Your task to perform on an android device: turn on notifications settings in the gmail app Image 0: 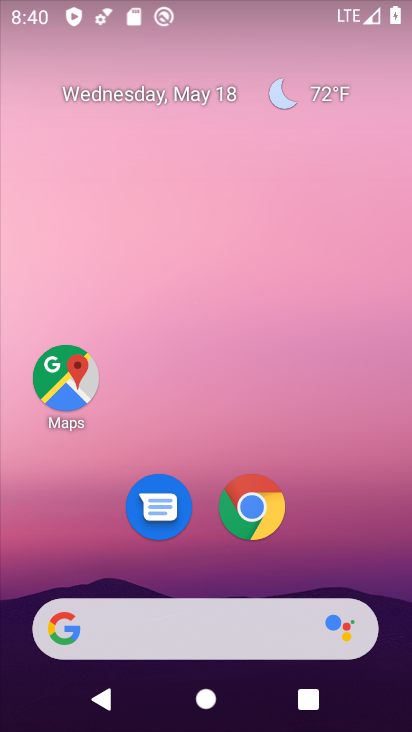
Step 0: drag from (262, 556) to (202, 30)
Your task to perform on an android device: turn on notifications settings in the gmail app Image 1: 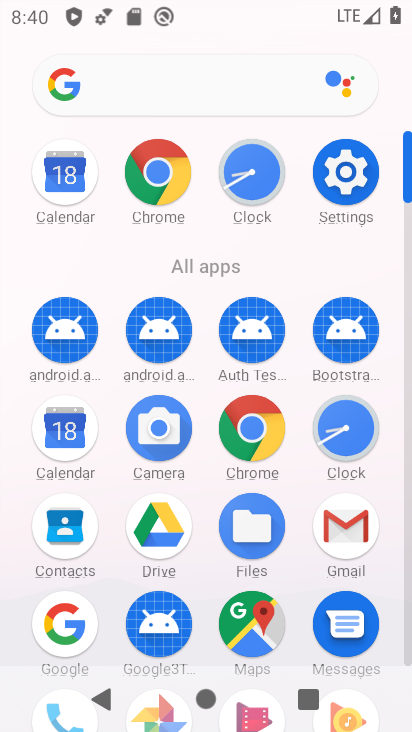
Step 1: click (408, 603)
Your task to perform on an android device: turn on notifications settings in the gmail app Image 2: 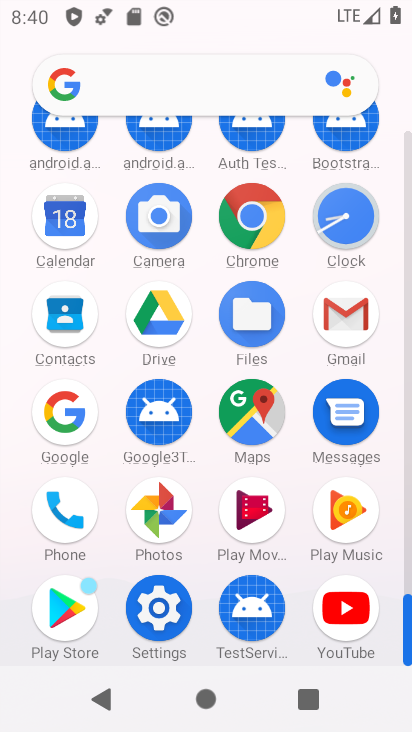
Step 2: click (359, 312)
Your task to perform on an android device: turn on notifications settings in the gmail app Image 3: 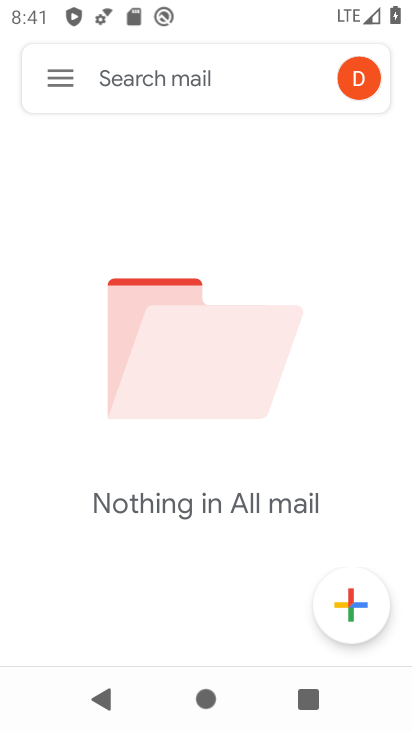
Step 3: press home button
Your task to perform on an android device: turn on notifications settings in the gmail app Image 4: 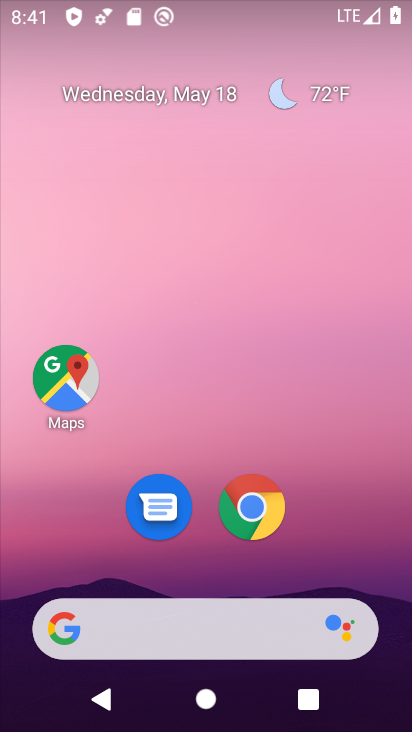
Step 4: drag from (339, 484) to (326, 11)
Your task to perform on an android device: turn on notifications settings in the gmail app Image 5: 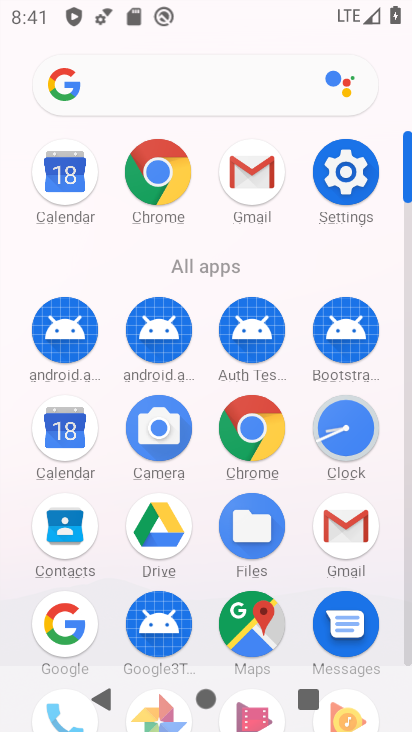
Step 5: click (333, 507)
Your task to perform on an android device: turn on notifications settings in the gmail app Image 6: 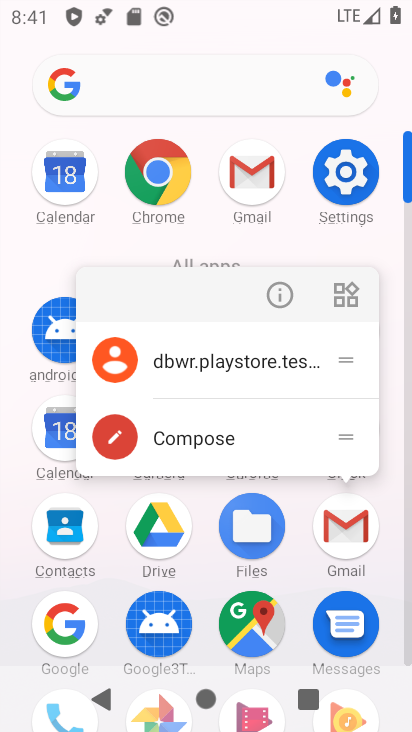
Step 6: click (280, 298)
Your task to perform on an android device: turn on notifications settings in the gmail app Image 7: 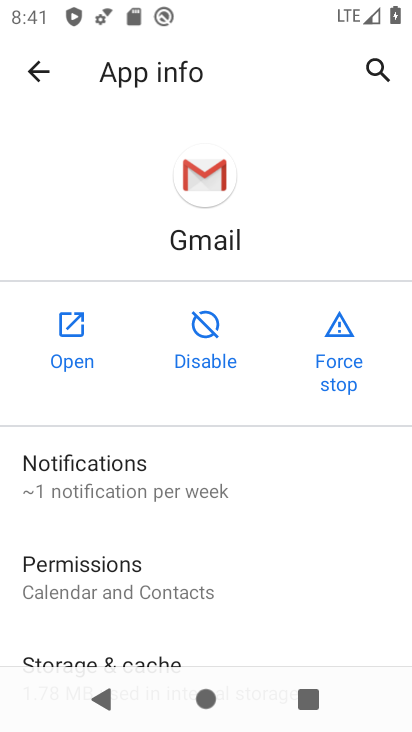
Step 7: task complete